Your task to perform on an android device: Show the shopping cart on bestbuy.com. Add energizer triple a to the cart on bestbuy.com Image 0: 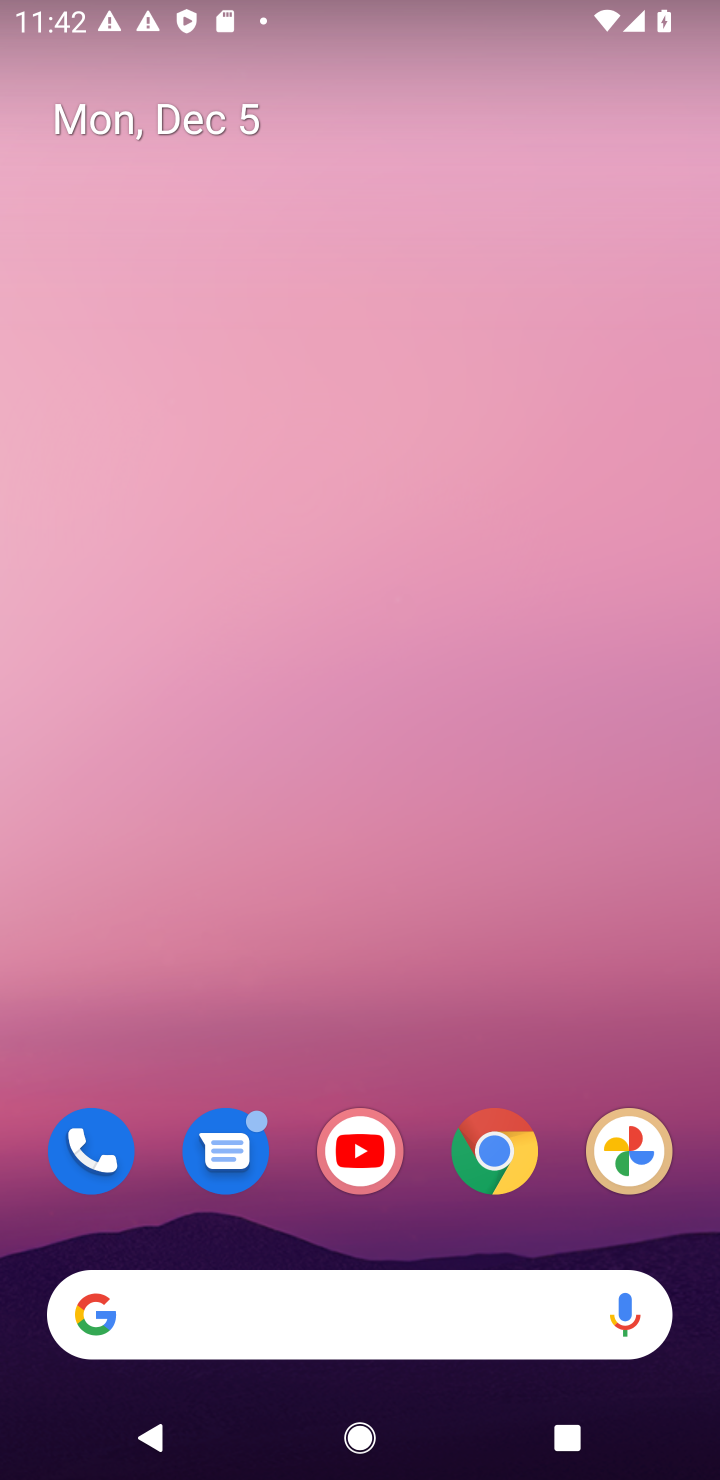
Step 0: click (506, 1164)
Your task to perform on an android device: Show the shopping cart on bestbuy.com. Add energizer triple a to the cart on bestbuy.com Image 1: 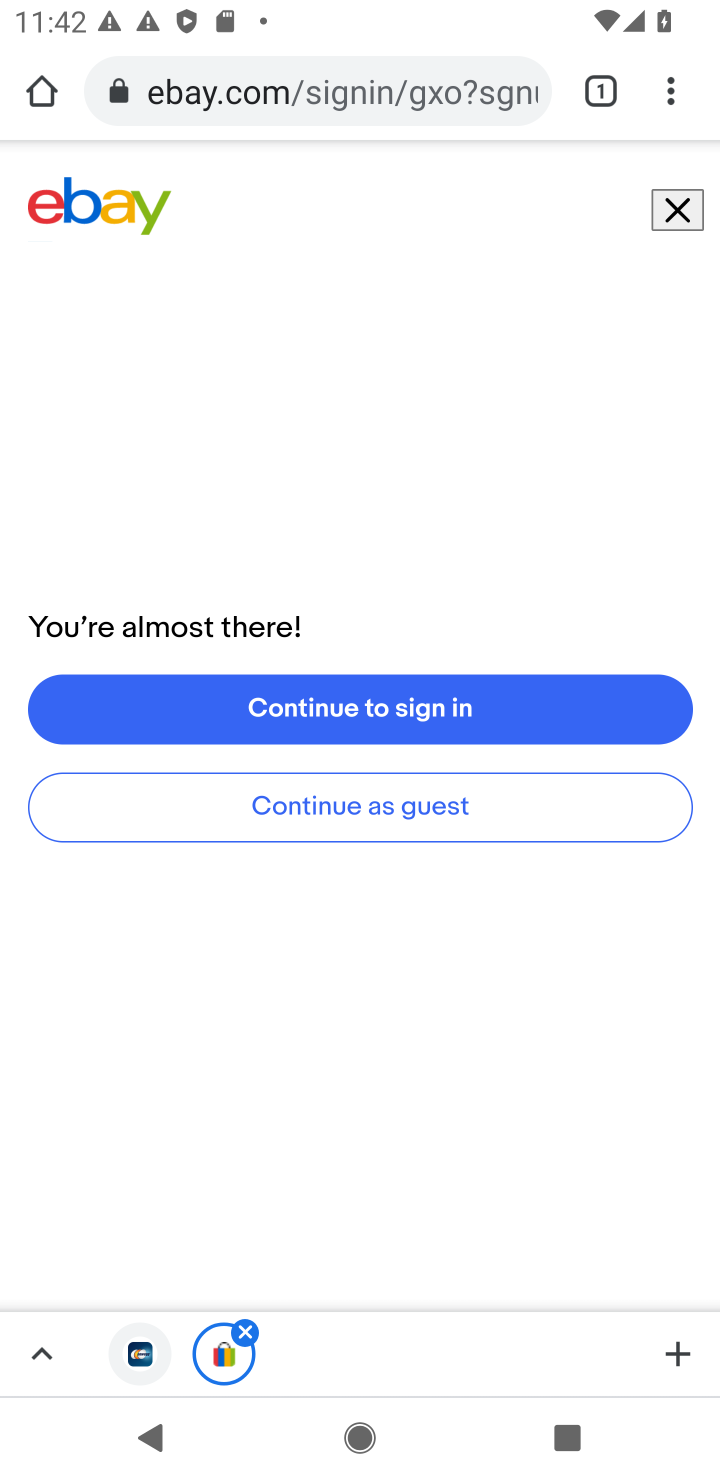
Step 1: click (239, 95)
Your task to perform on an android device: Show the shopping cart on bestbuy.com. Add energizer triple a to the cart on bestbuy.com Image 2: 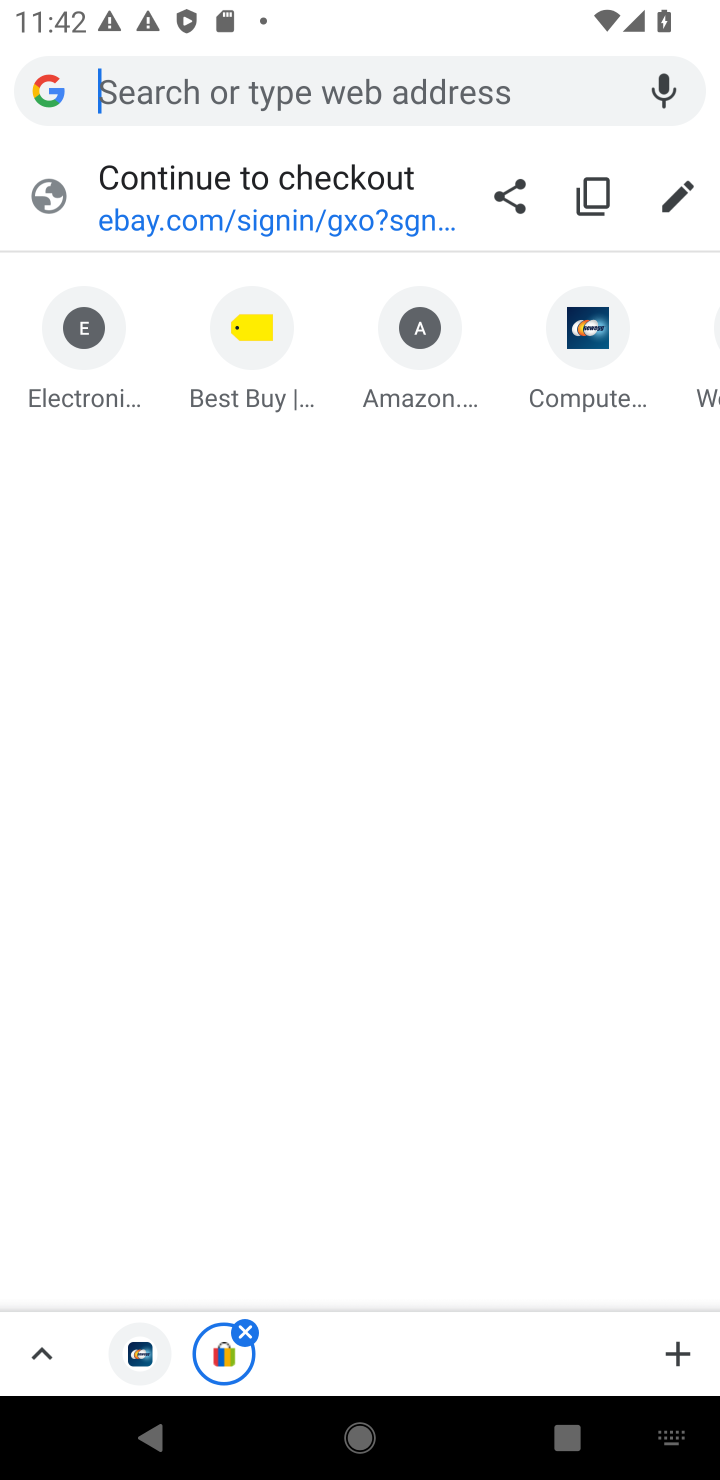
Step 2: click (225, 378)
Your task to perform on an android device: Show the shopping cart on bestbuy.com. Add energizer triple a to the cart on bestbuy.com Image 3: 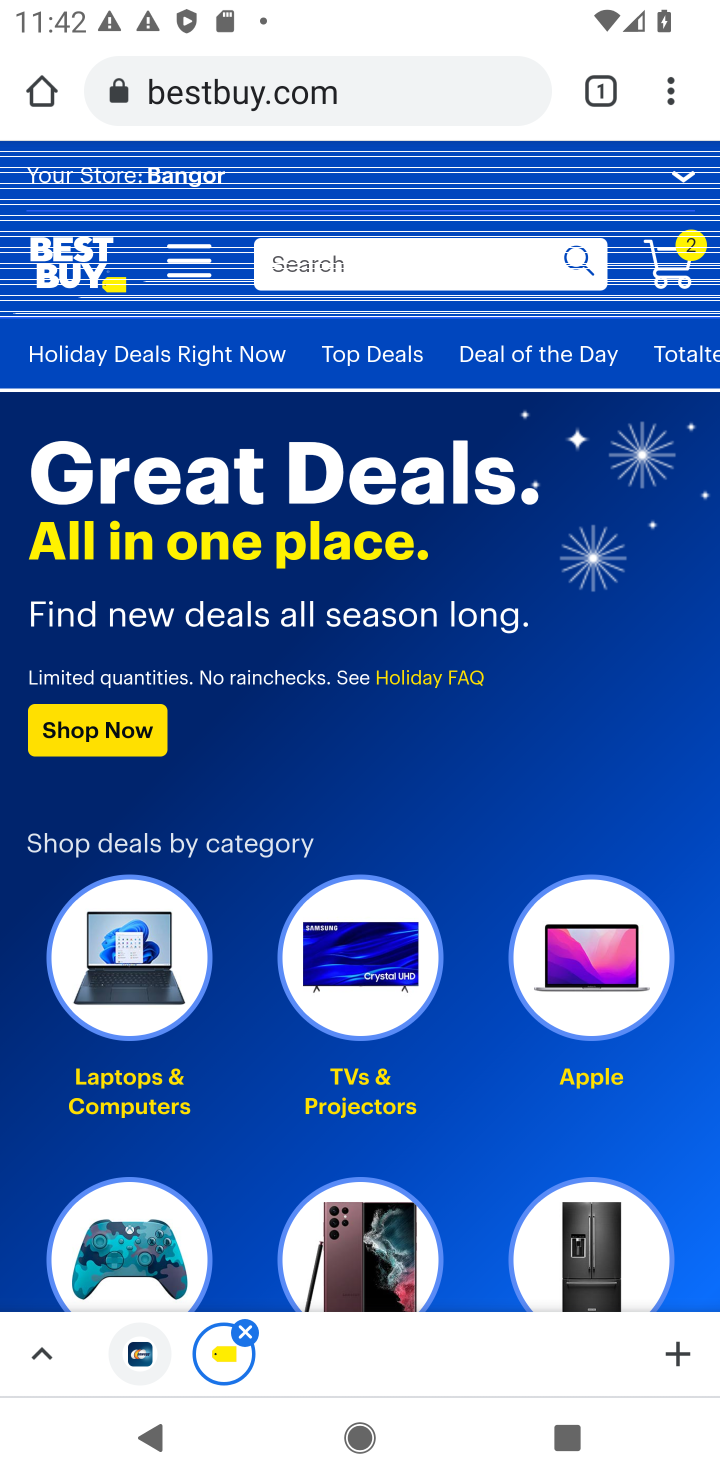
Step 3: click (663, 272)
Your task to perform on an android device: Show the shopping cart on bestbuy.com. Add energizer triple a to the cart on bestbuy.com Image 4: 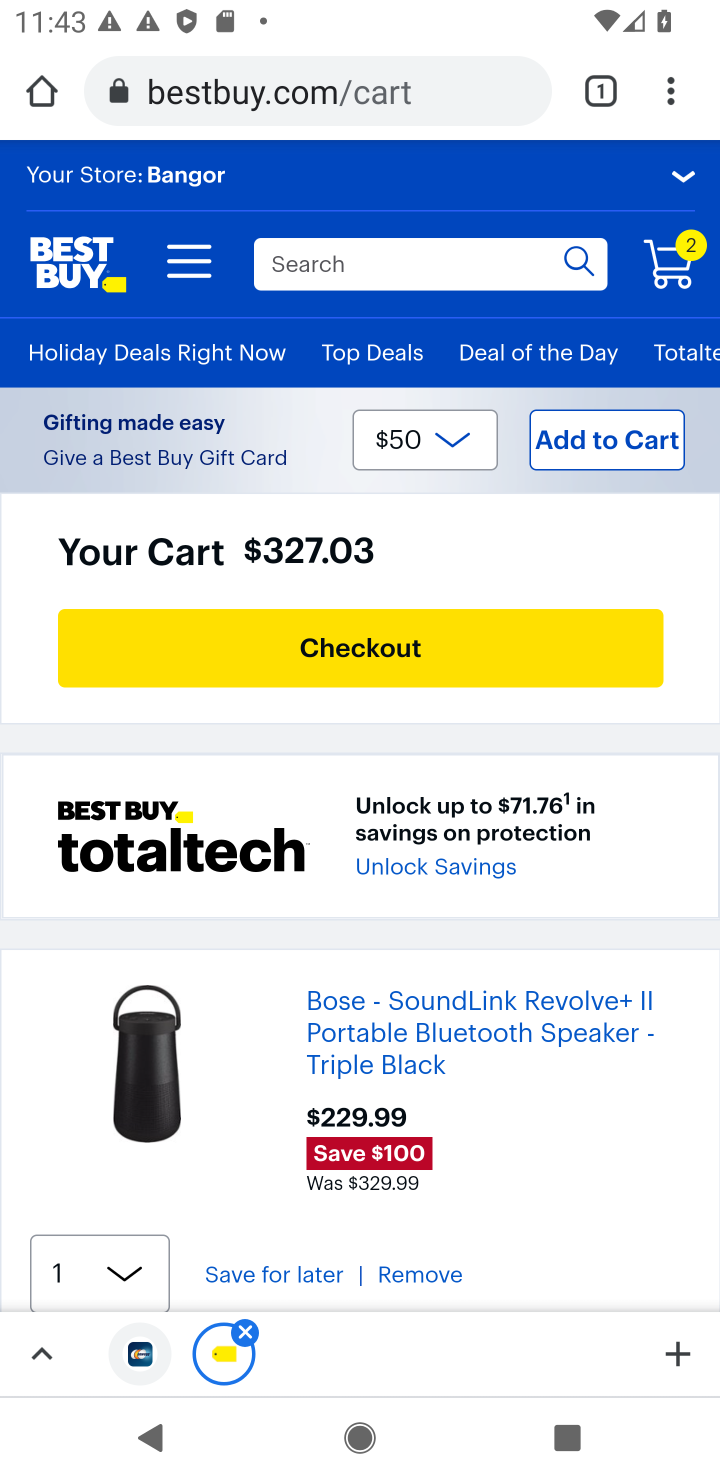
Step 4: click (357, 270)
Your task to perform on an android device: Show the shopping cart on bestbuy.com. Add energizer triple a to the cart on bestbuy.com Image 5: 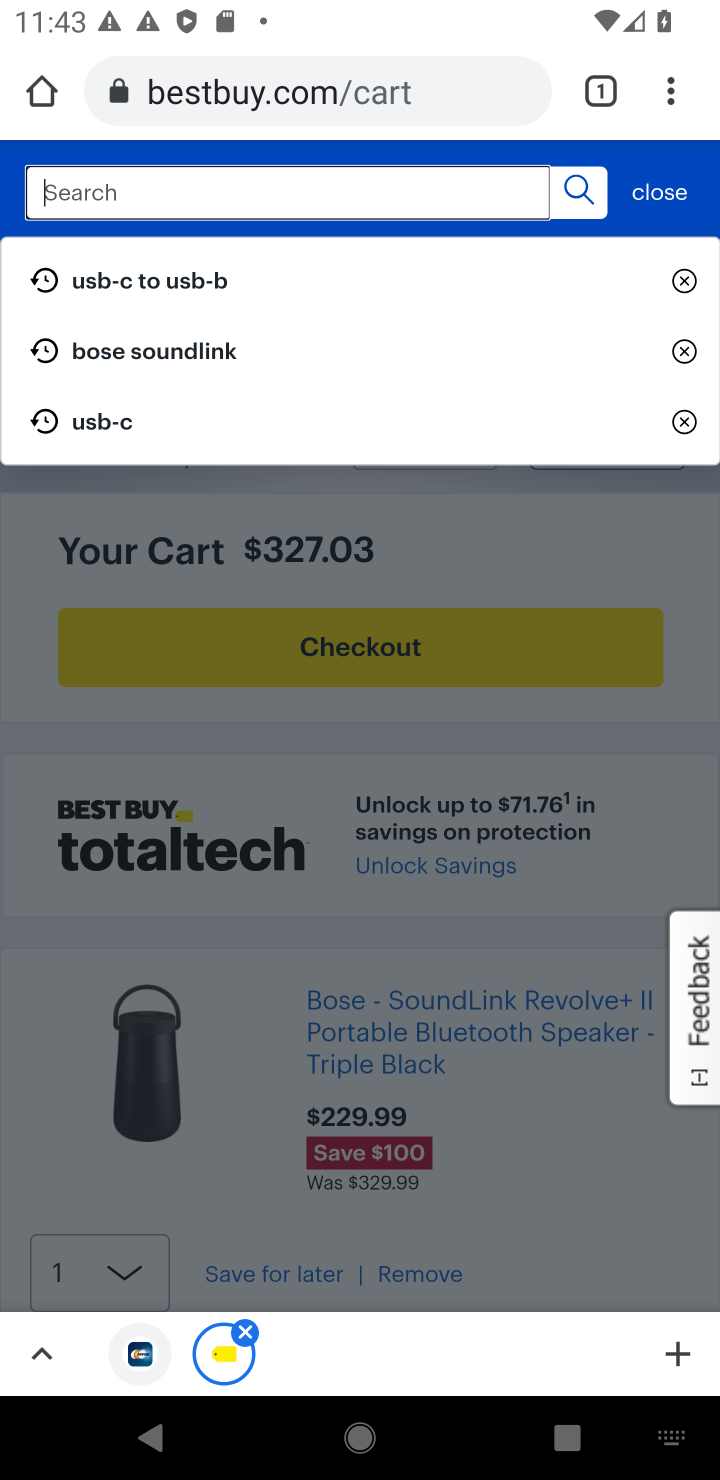
Step 5: type "energizer triple a"
Your task to perform on an android device: Show the shopping cart on bestbuy.com. Add energizer triple a to the cart on bestbuy.com Image 6: 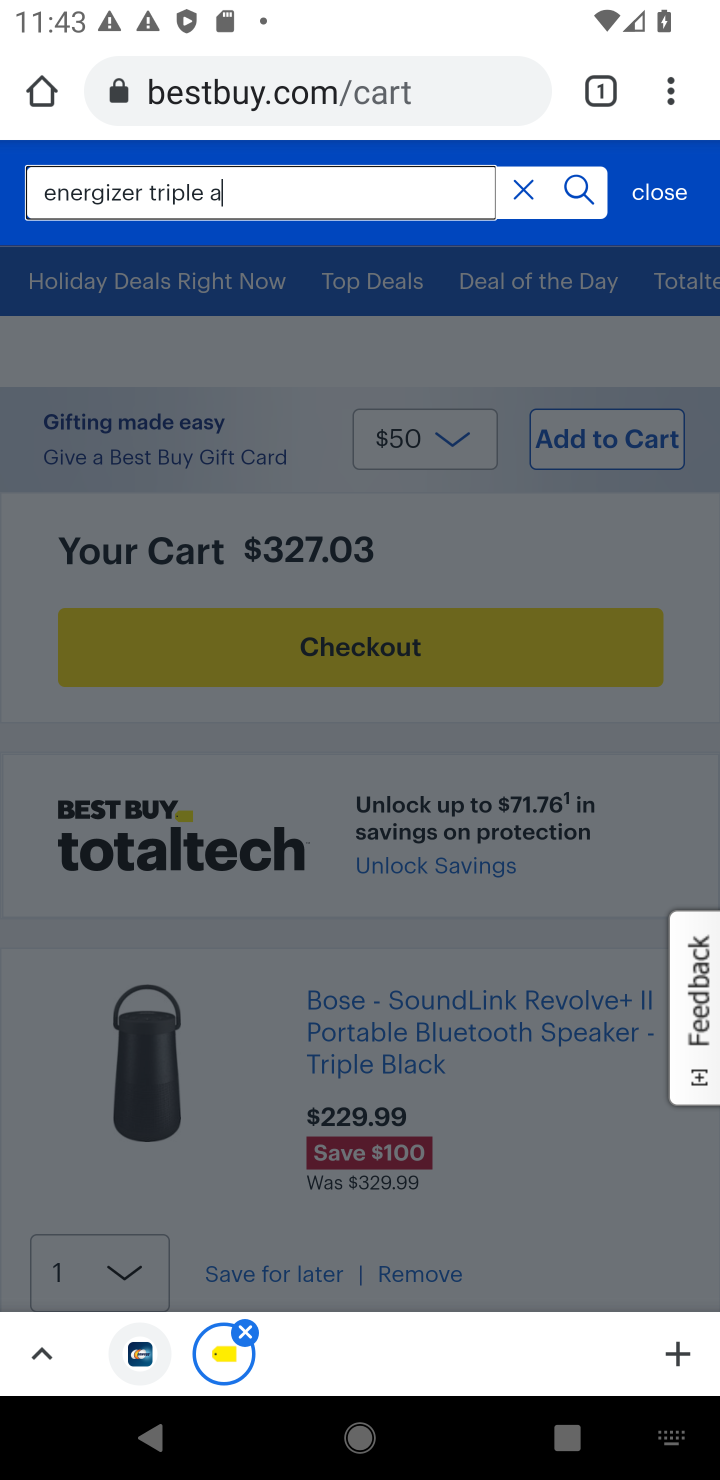
Step 6: click (568, 191)
Your task to perform on an android device: Show the shopping cart on bestbuy.com. Add energizer triple a to the cart on bestbuy.com Image 7: 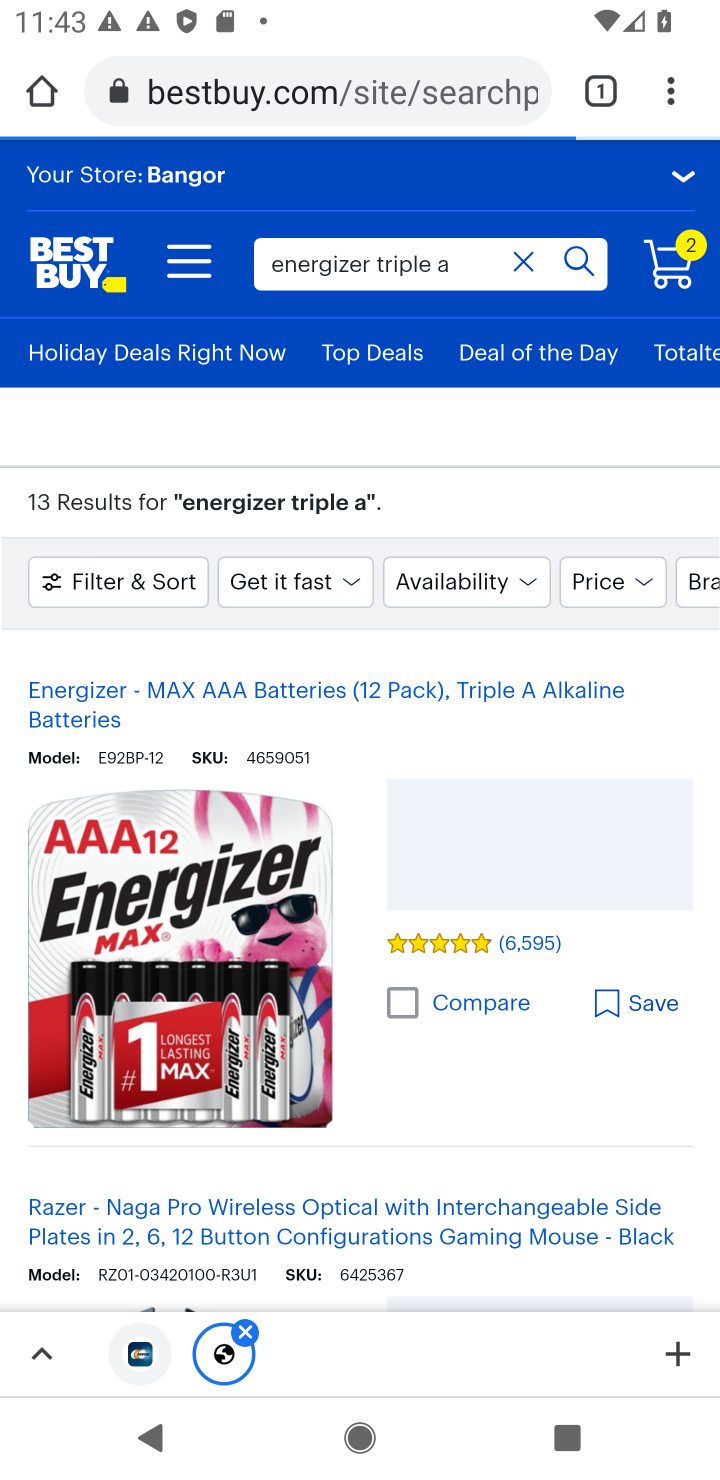
Step 7: drag from (321, 789) to (369, 465)
Your task to perform on an android device: Show the shopping cart on bestbuy.com. Add energizer triple a to the cart on bestbuy.com Image 8: 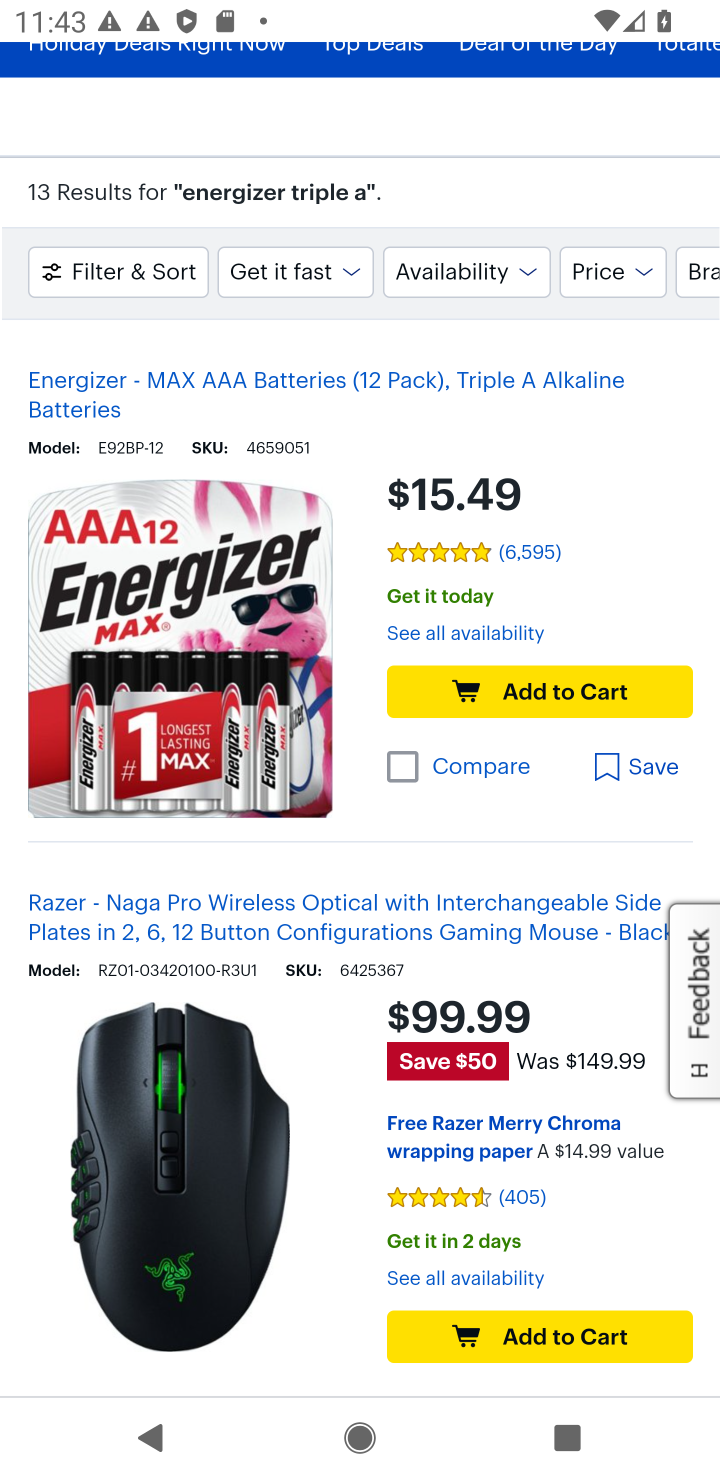
Step 8: click (510, 690)
Your task to perform on an android device: Show the shopping cart on bestbuy.com. Add energizer triple a to the cart on bestbuy.com Image 9: 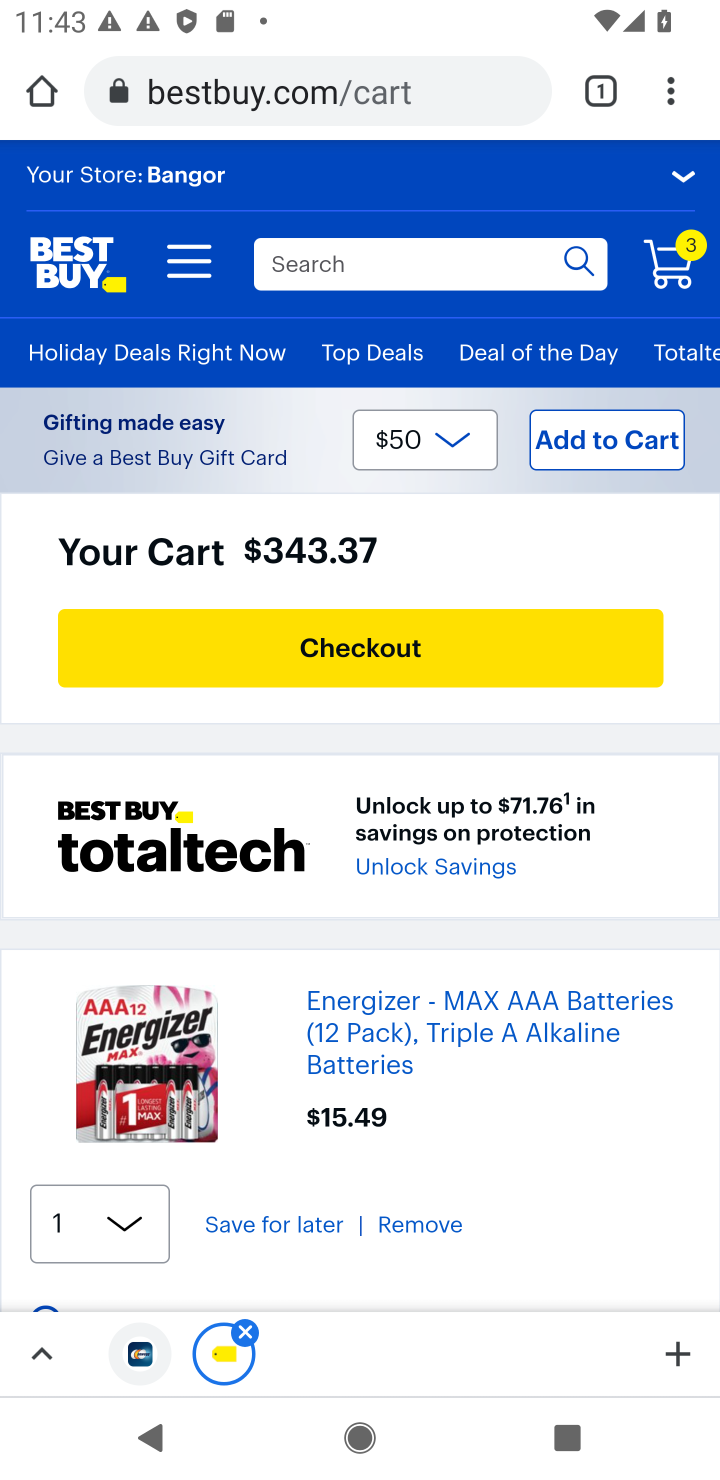
Step 9: task complete